Your task to perform on an android device: Go to privacy settings Image 0: 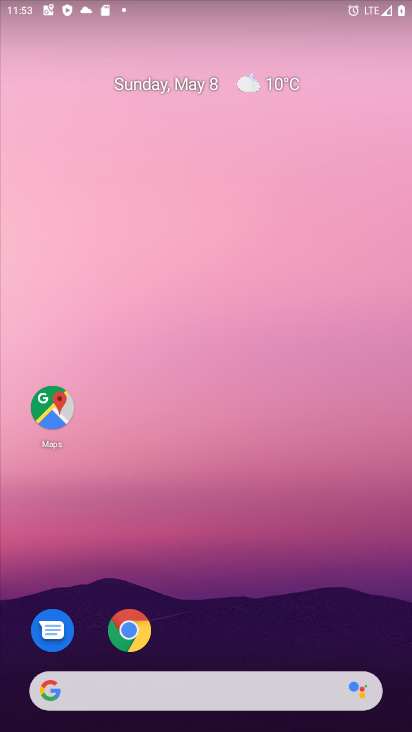
Step 0: drag from (363, 635) to (173, 15)
Your task to perform on an android device: Go to privacy settings Image 1: 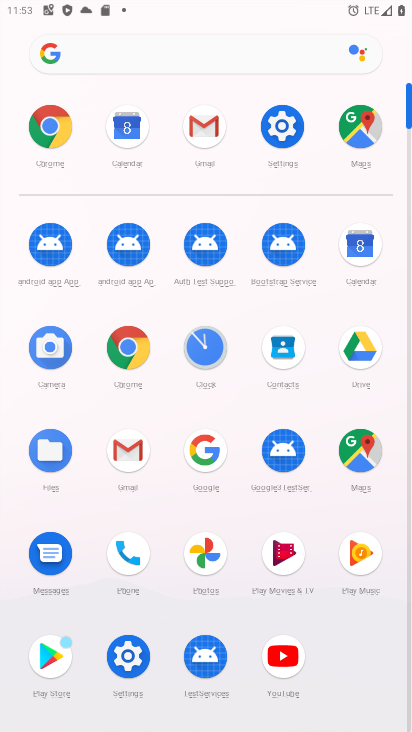
Step 1: click (119, 673)
Your task to perform on an android device: Go to privacy settings Image 2: 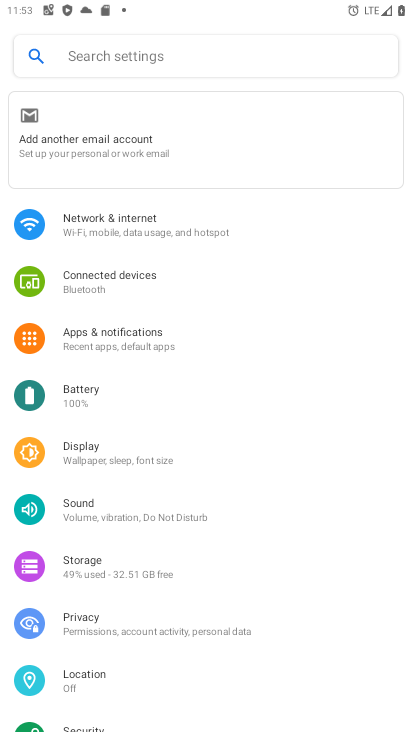
Step 2: click (118, 624)
Your task to perform on an android device: Go to privacy settings Image 3: 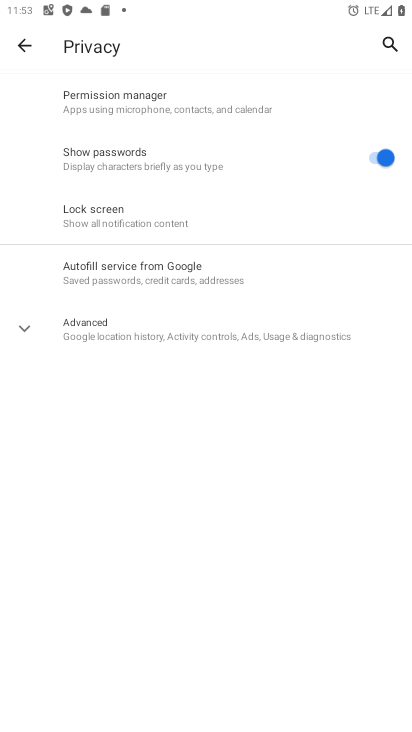
Step 3: task complete